Your task to perform on an android device: toggle data saver in the chrome app Image 0: 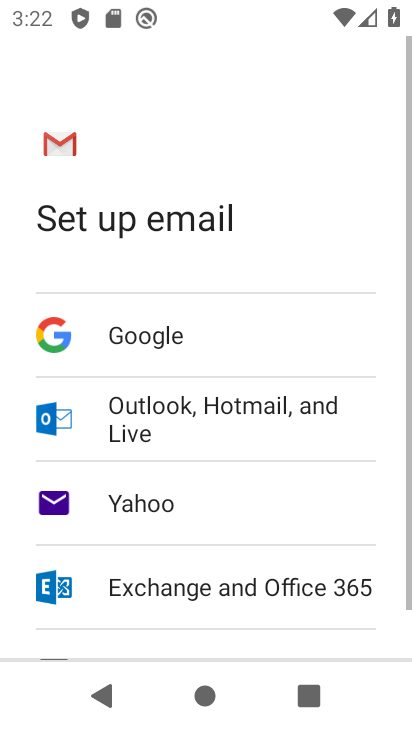
Step 0: press home button
Your task to perform on an android device: toggle data saver in the chrome app Image 1: 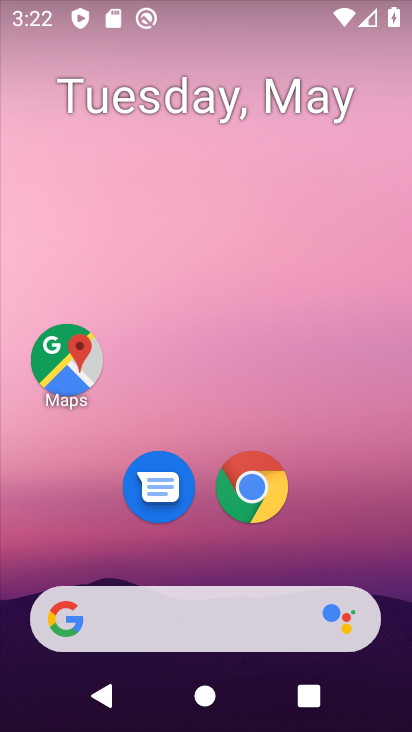
Step 1: click (247, 477)
Your task to perform on an android device: toggle data saver in the chrome app Image 2: 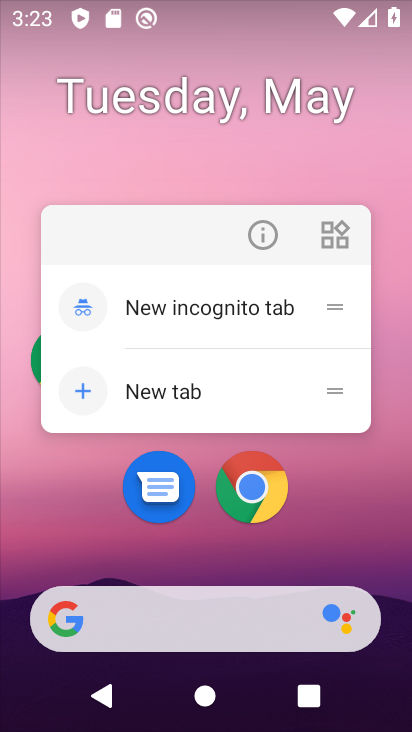
Step 2: click (247, 484)
Your task to perform on an android device: toggle data saver in the chrome app Image 3: 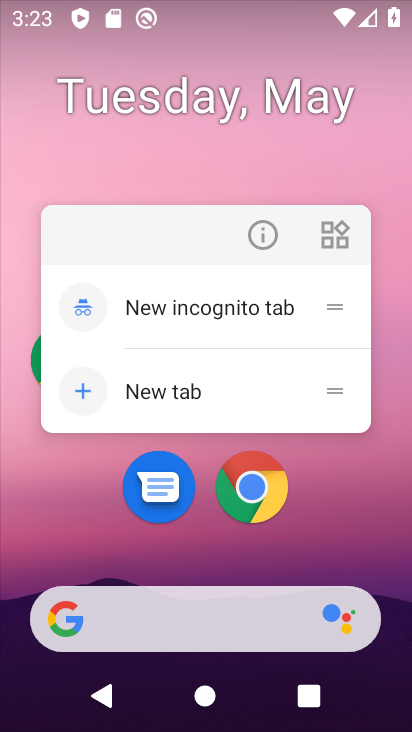
Step 3: drag from (214, 537) to (236, 37)
Your task to perform on an android device: toggle data saver in the chrome app Image 4: 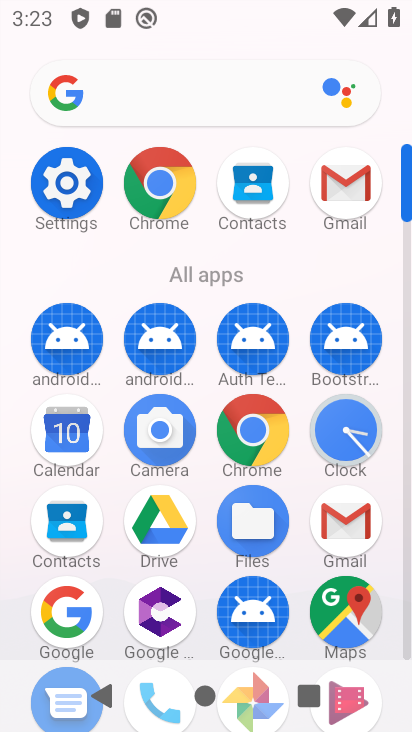
Step 4: click (160, 177)
Your task to perform on an android device: toggle data saver in the chrome app Image 5: 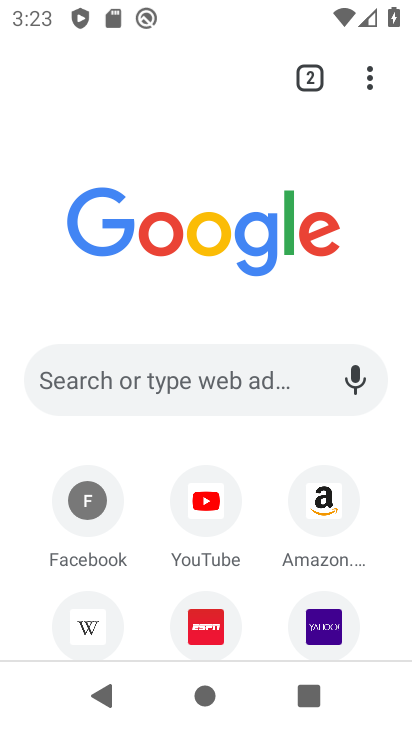
Step 5: click (363, 71)
Your task to perform on an android device: toggle data saver in the chrome app Image 6: 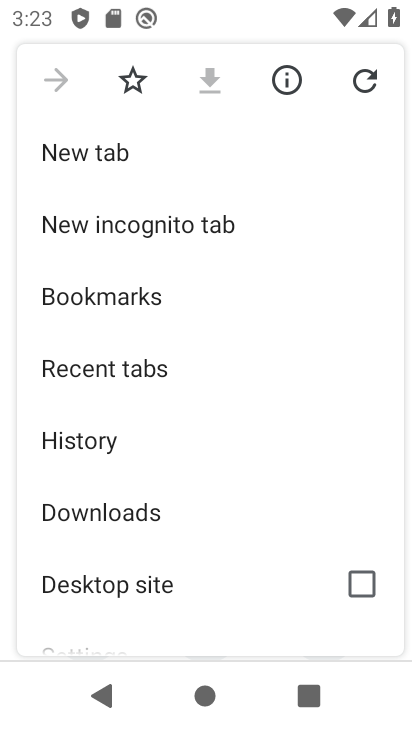
Step 6: drag from (193, 543) to (251, 64)
Your task to perform on an android device: toggle data saver in the chrome app Image 7: 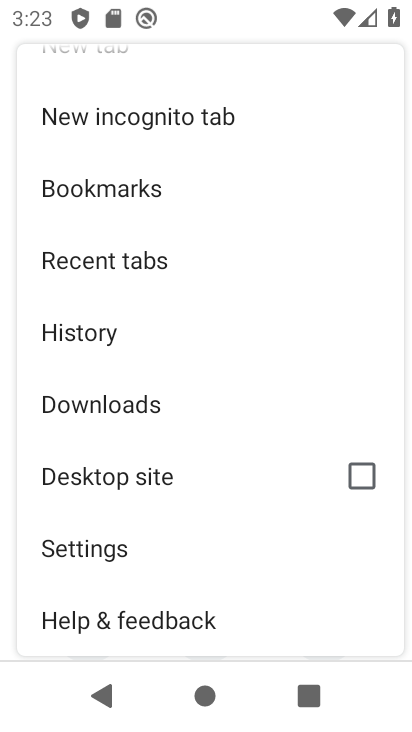
Step 7: click (142, 541)
Your task to perform on an android device: toggle data saver in the chrome app Image 8: 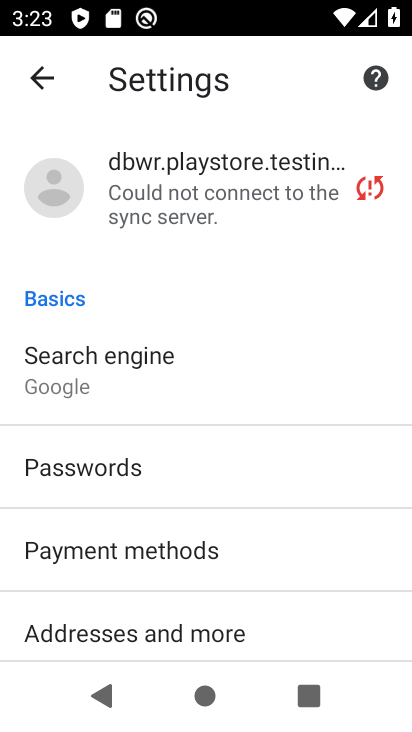
Step 8: drag from (275, 624) to (296, 223)
Your task to perform on an android device: toggle data saver in the chrome app Image 9: 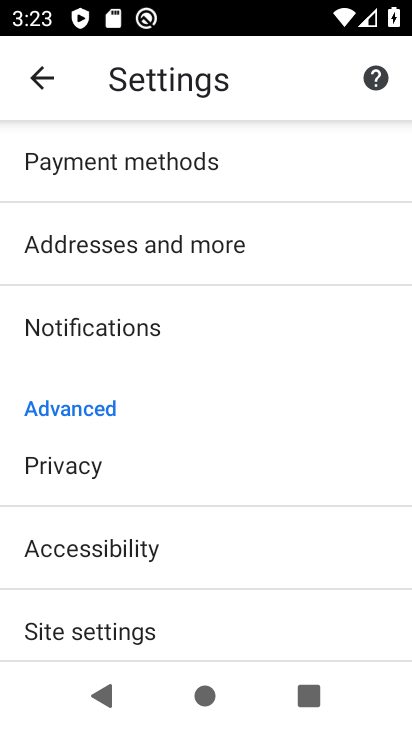
Step 9: drag from (191, 620) to (195, 441)
Your task to perform on an android device: toggle data saver in the chrome app Image 10: 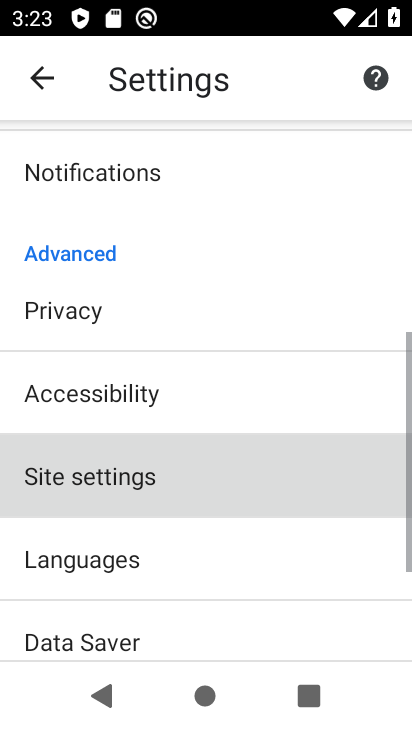
Step 10: click (207, 339)
Your task to perform on an android device: toggle data saver in the chrome app Image 11: 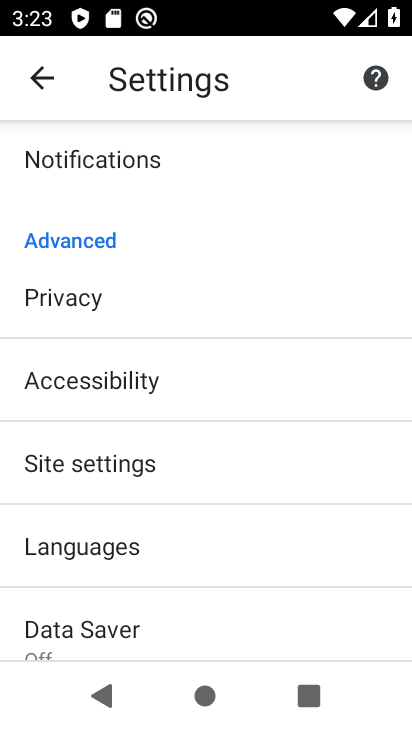
Step 11: click (152, 631)
Your task to perform on an android device: toggle data saver in the chrome app Image 12: 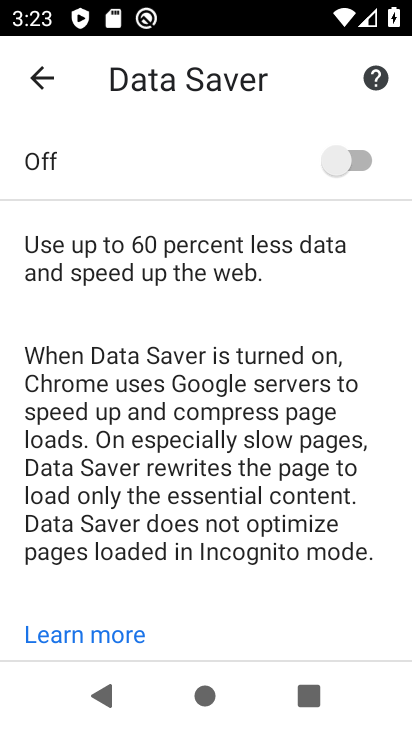
Step 12: click (360, 154)
Your task to perform on an android device: toggle data saver in the chrome app Image 13: 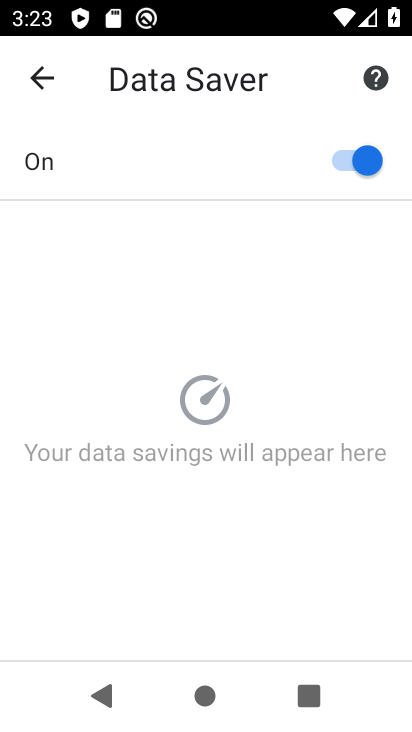
Step 13: task complete